Your task to perform on an android device: stop showing notifications on the lock screen Image 0: 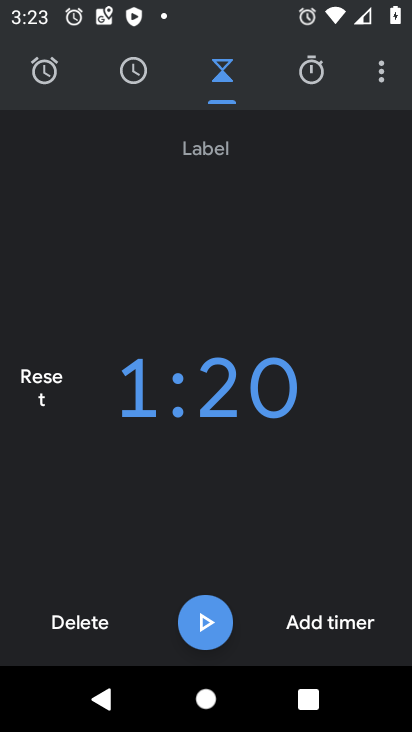
Step 0: press home button
Your task to perform on an android device: stop showing notifications on the lock screen Image 1: 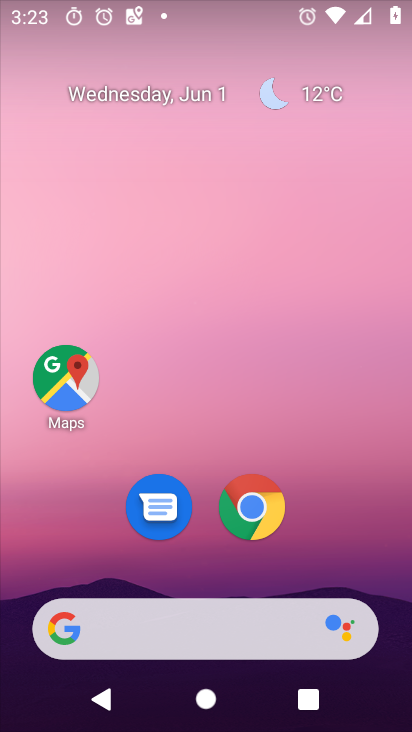
Step 1: drag from (340, 558) to (148, 18)
Your task to perform on an android device: stop showing notifications on the lock screen Image 2: 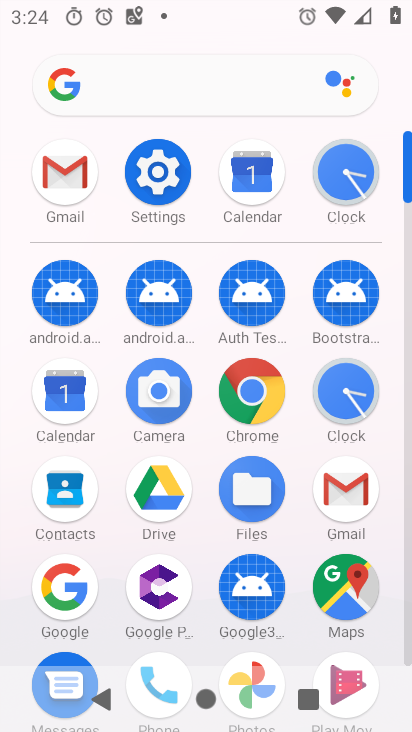
Step 2: click (154, 188)
Your task to perform on an android device: stop showing notifications on the lock screen Image 3: 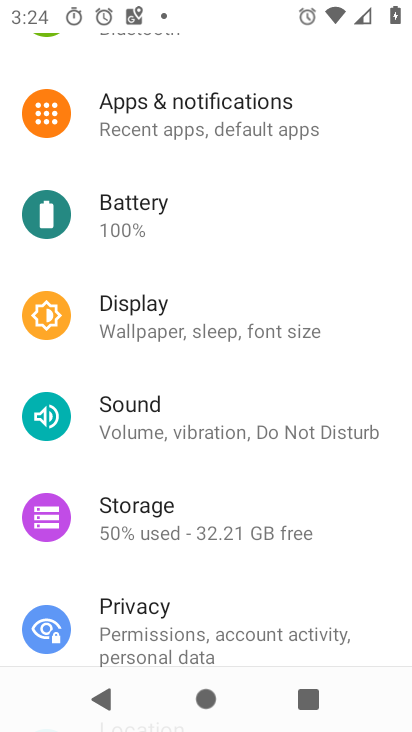
Step 3: click (216, 127)
Your task to perform on an android device: stop showing notifications on the lock screen Image 4: 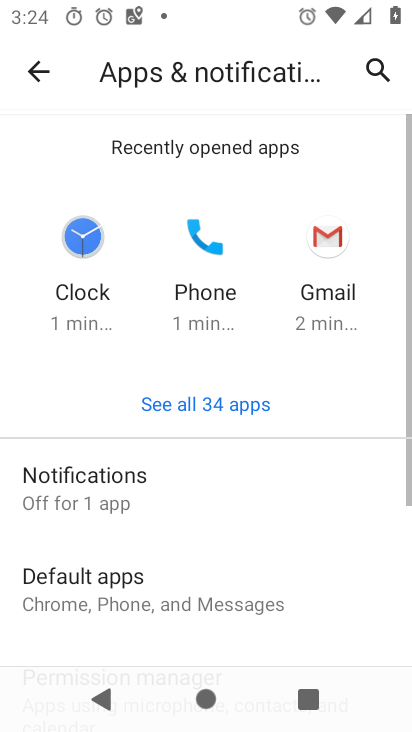
Step 4: click (81, 459)
Your task to perform on an android device: stop showing notifications on the lock screen Image 5: 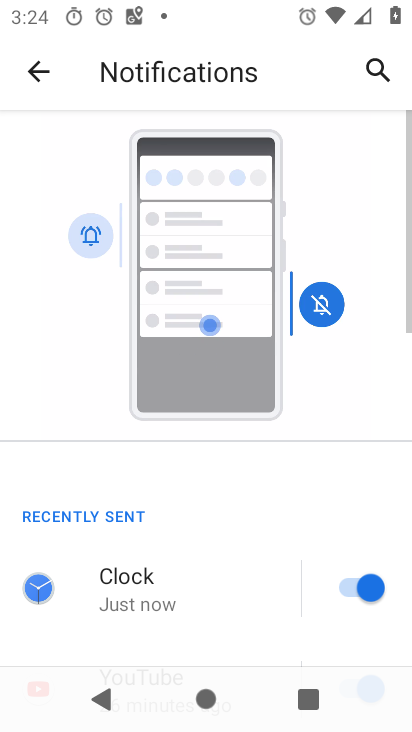
Step 5: drag from (169, 606) to (195, 4)
Your task to perform on an android device: stop showing notifications on the lock screen Image 6: 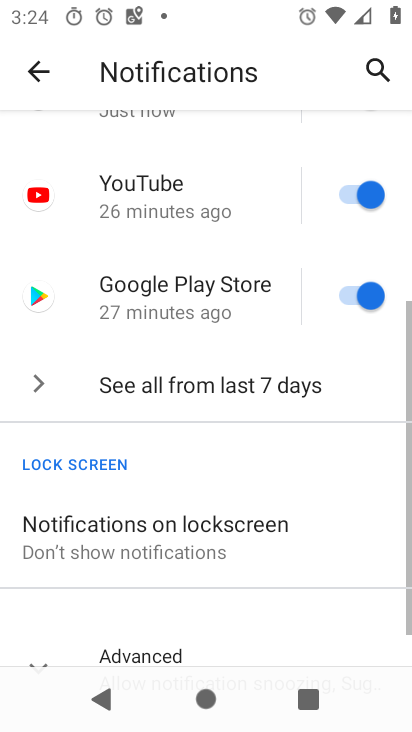
Step 6: click (101, 537)
Your task to perform on an android device: stop showing notifications on the lock screen Image 7: 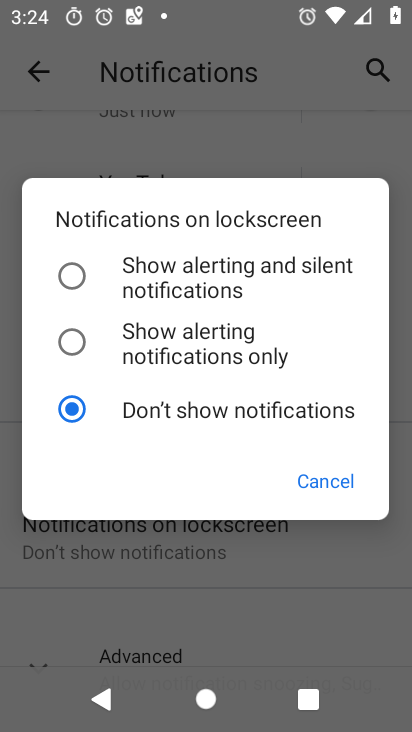
Step 7: task complete